Your task to perform on an android device: turn on bluetooth scan Image 0: 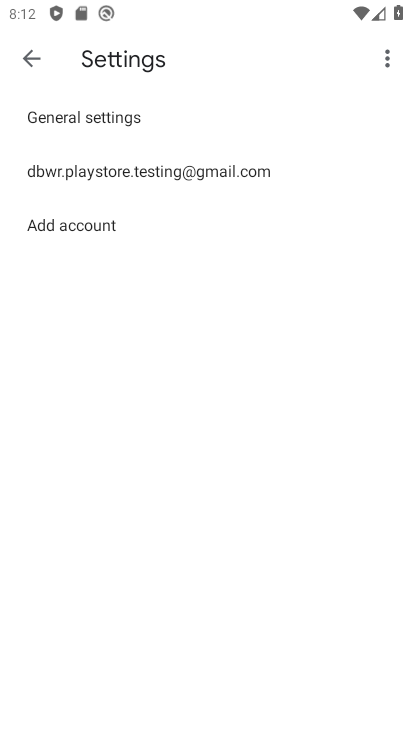
Step 0: press home button
Your task to perform on an android device: turn on bluetooth scan Image 1: 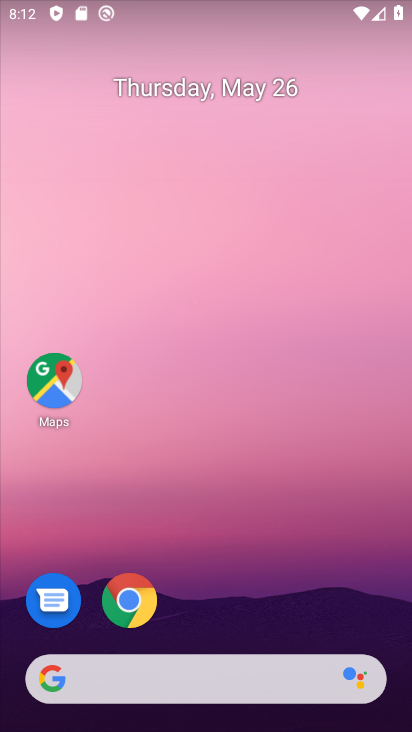
Step 1: drag from (292, 584) to (311, 420)
Your task to perform on an android device: turn on bluetooth scan Image 2: 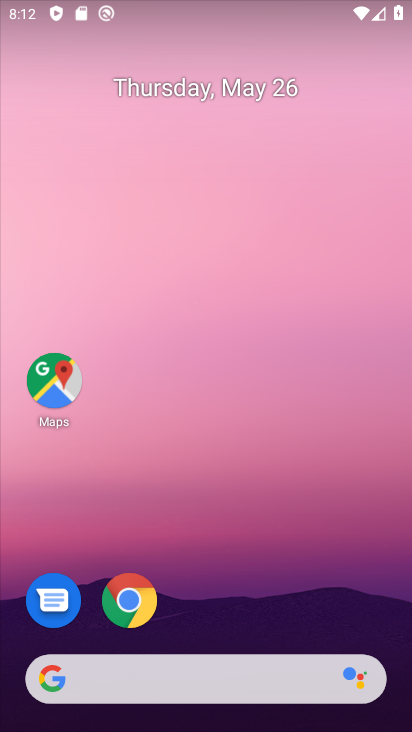
Step 2: drag from (232, 607) to (279, 305)
Your task to perform on an android device: turn on bluetooth scan Image 3: 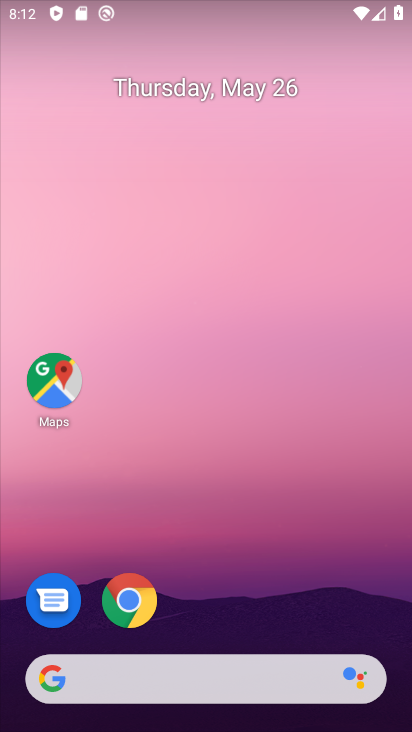
Step 3: drag from (272, 627) to (379, 60)
Your task to perform on an android device: turn on bluetooth scan Image 4: 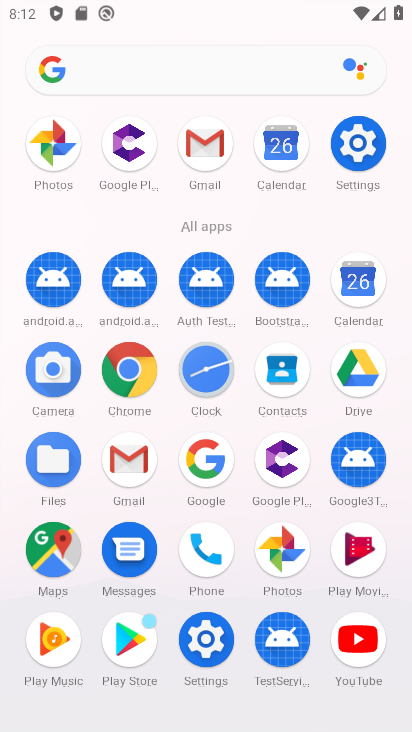
Step 4: click (351, 142)
Your task to perform on an android device: turn on bluetooth scan Image 5: 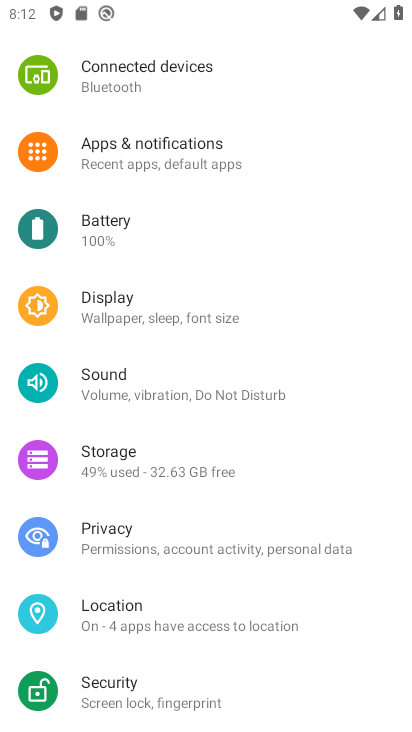
Step 5: click (172, 608)
Your task to perform on an android device: turn on bluetooth scan Image 6: 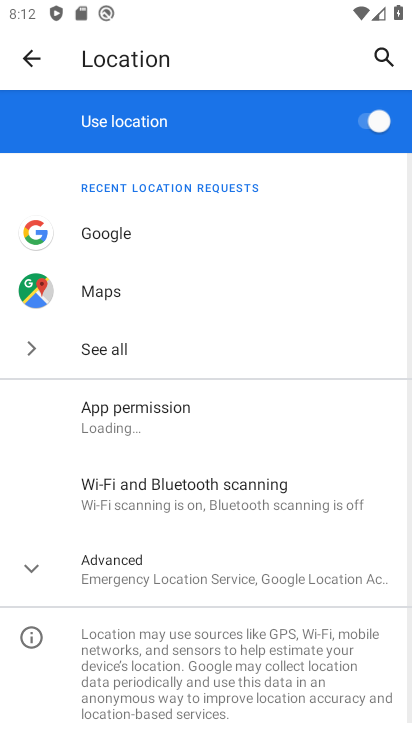
Step 6: click (197, 486)
Your task to perform on an android device: turn on bluetooth scan Image 7: 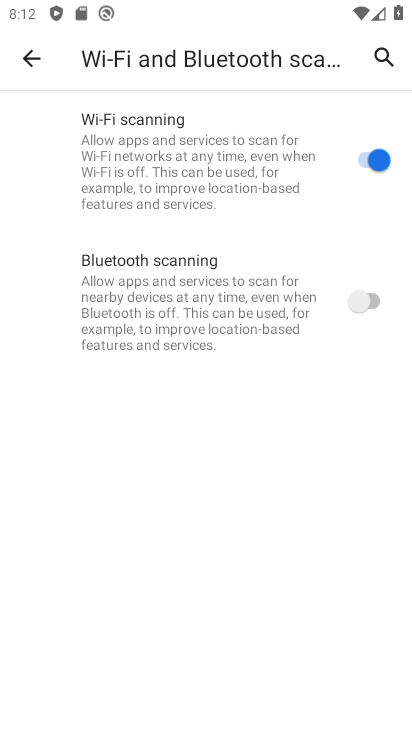
Step 7: click (366, 295)
Your task to perform on an android device: turn on bluetooth scan Image 8: 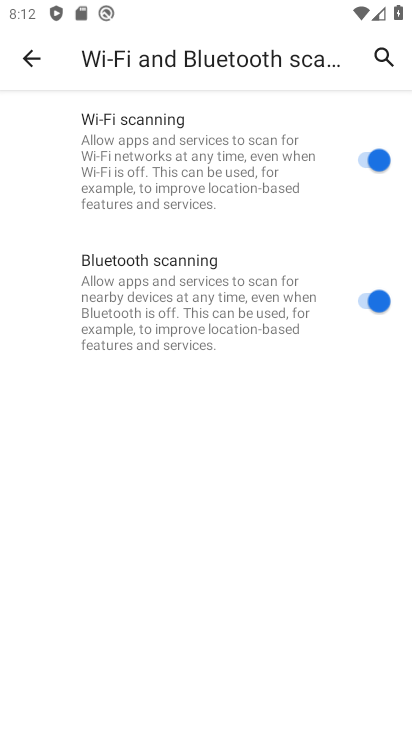
Step 8: task complete